Your task to perform on an android device: Go to Reddit.com Image 0: 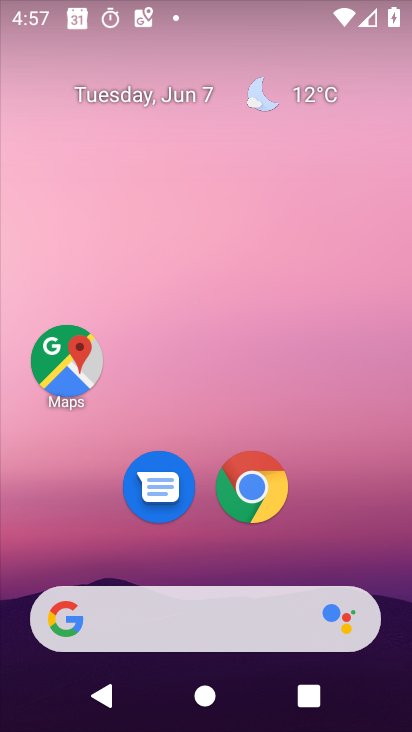
Step 0: click (247, 479)
Your task to perform on an android device: Go to Reddit.com Image 1: 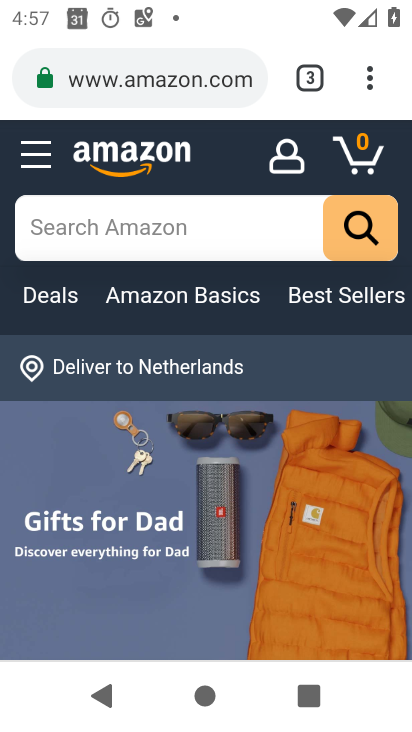
Step 1: click (312, 68)
Your task to perform on an android device: Go to Reddit.com Image 2: 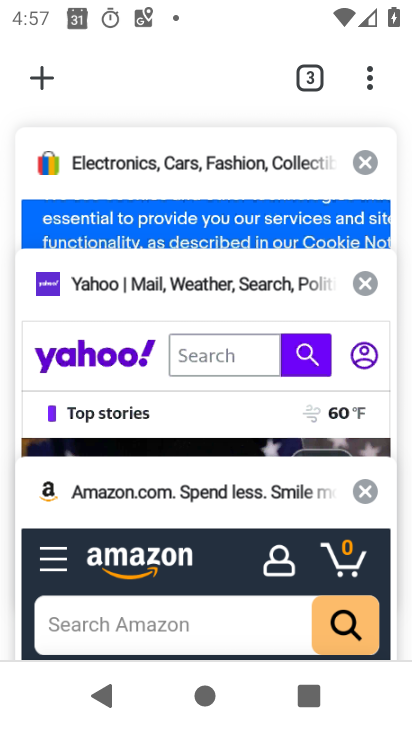
Step 2: click (40, 58)
Your task to perform on an android device: Go to Reddit.com Image 3: 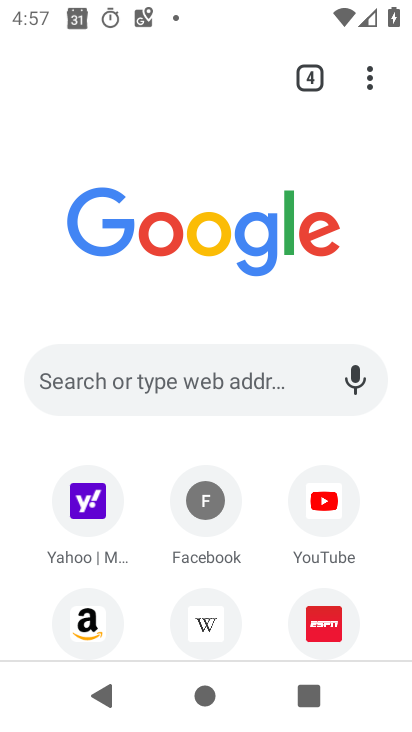
Step 3: click (115, 380)
Your task to perform on an android device: Go to Reddit.com Image 4: 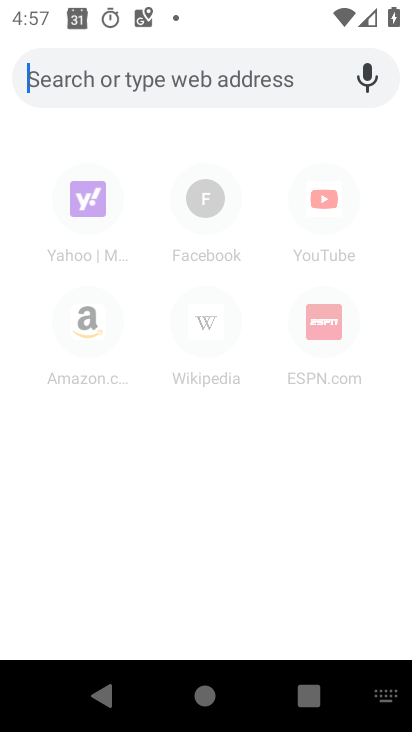
Step 4: type "reddit.com"
Your task to perform on an android device: Go to Reddit.com Image 5: 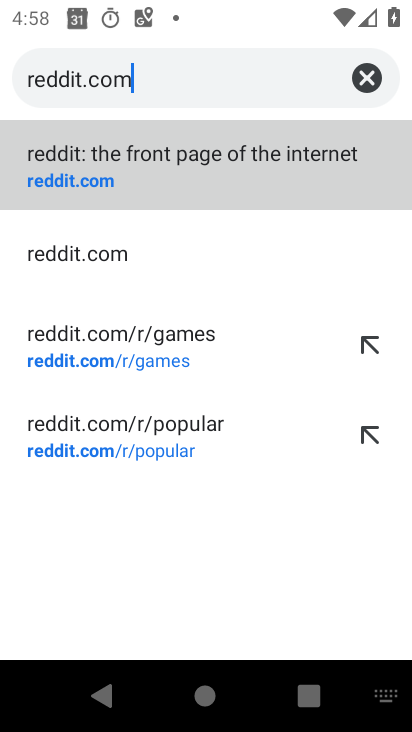
Step 5: click (167, 186)
Your task to perform on an android device: Go to Reddit.com Image 6: 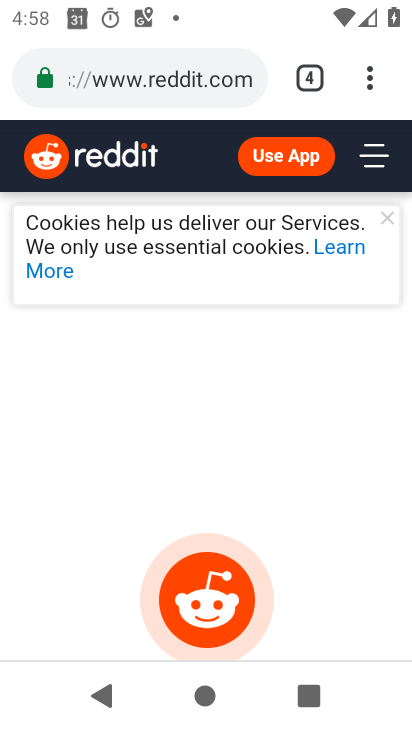
Step 6: task complete